Your task to perform on an android device: Go to sound settings Image 0: 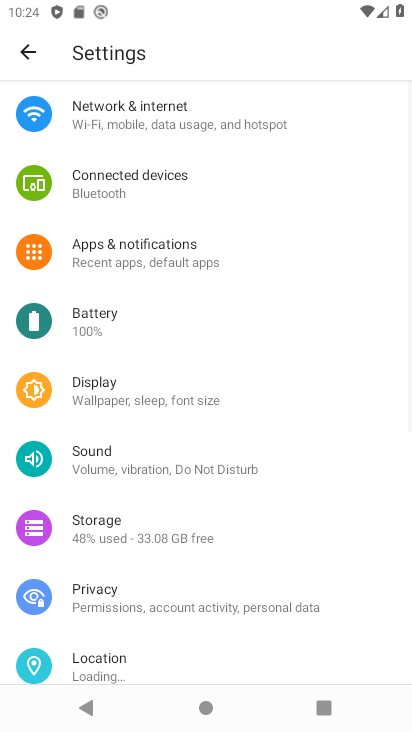
Step 0: click (75, 467)
Your task to perform on an android device: Go to sound settings Image 1: 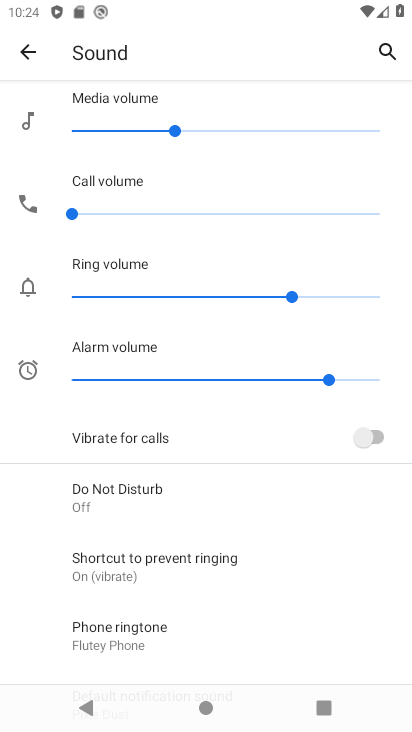
Step 1: task complete